Your task to perform on an android device: star an email in the gmail app Image 0: 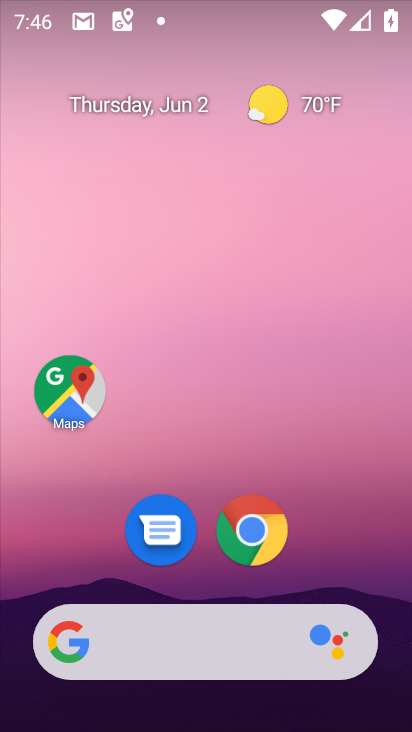
Step 0: drag from (211, 606) to (277, 334)
Your task to perform on an android device: star an email in the gmail app Image 1: 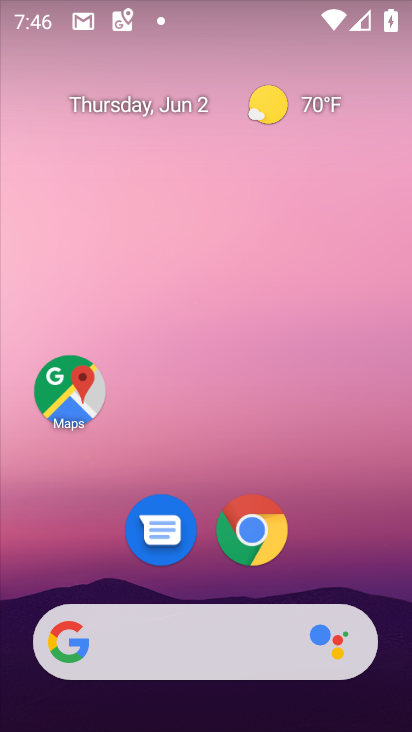
Step 1: drag from (254, 598) to (287, 260)
Your task to perform on an android device: star an email in the gmail app Image 2: 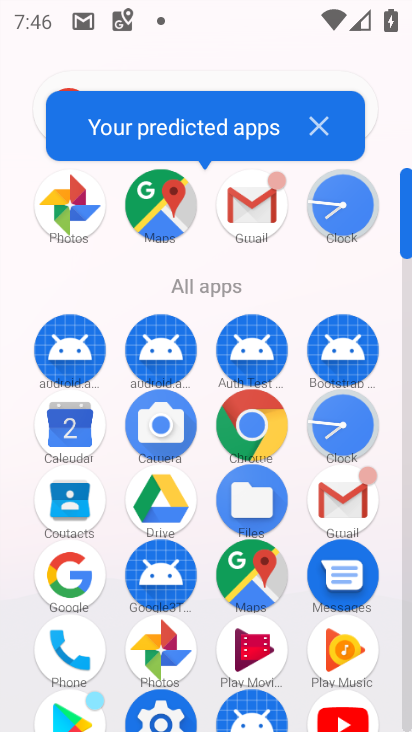
Step 2: click (254, 208)
Your task to perform on an android device: star an email in the gmail app Image 3: 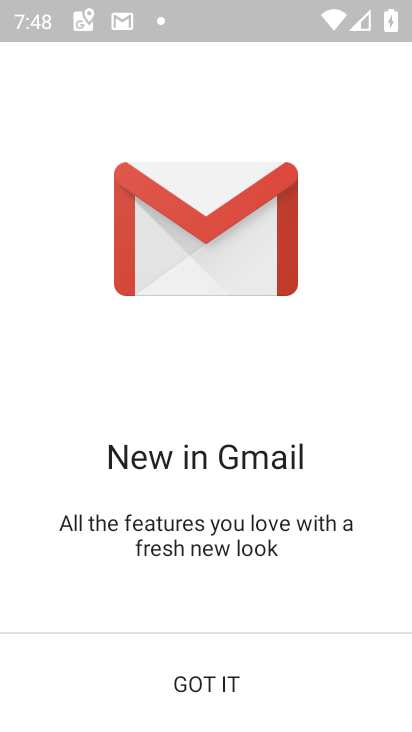
Step 3: click (178, 679)
Your task to perform on an android device: star an email in the gmail app Image 4: 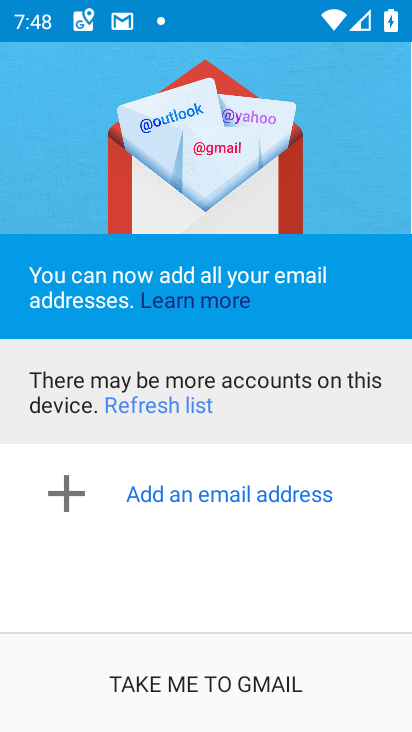
Step 4: click (178, 679)
Your task to perform on an android device: star an email in the gmail app Image 5: 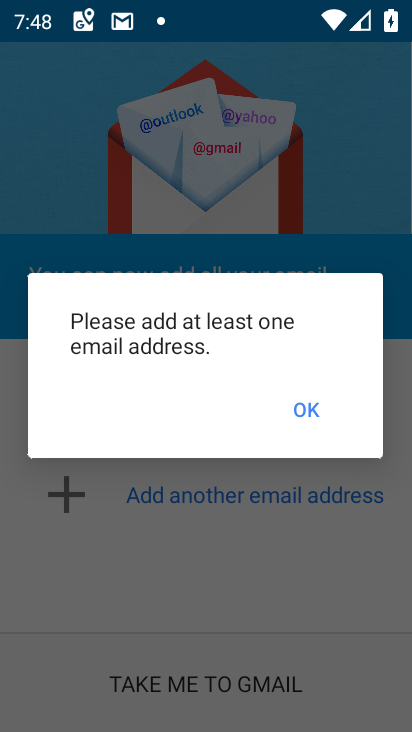
Step 5: click (307, 400)
Your task to perform on an android device: star an email in the gmail app Image 6: 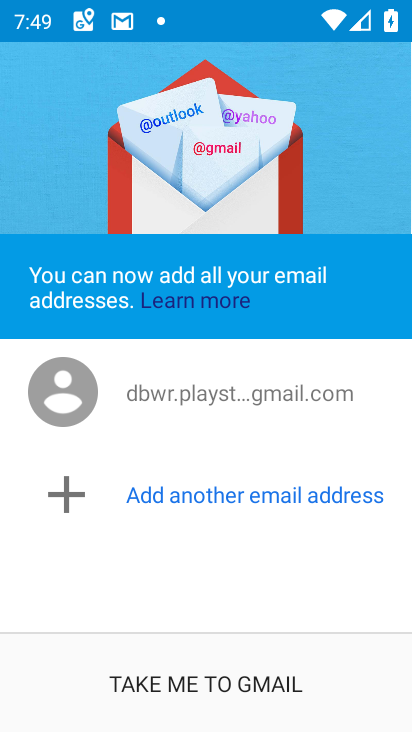
Step 6: click (226, 685)
Your task to perform on an android device: star an email in the gmail app Image 7: 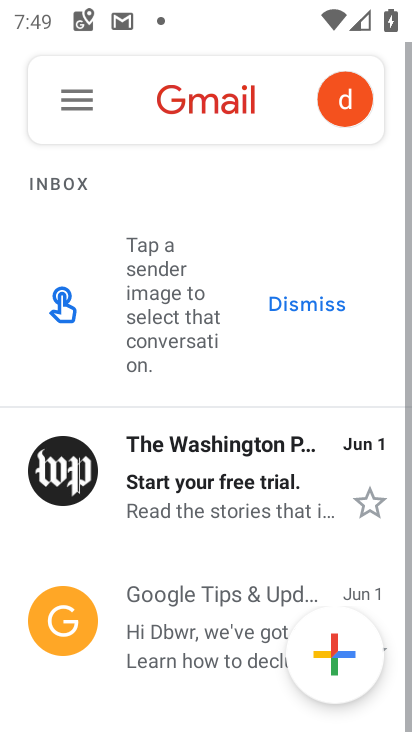
Step 7: click (365, 506)
Your task to perform on an android device: star an email in the gmail app Image 8: 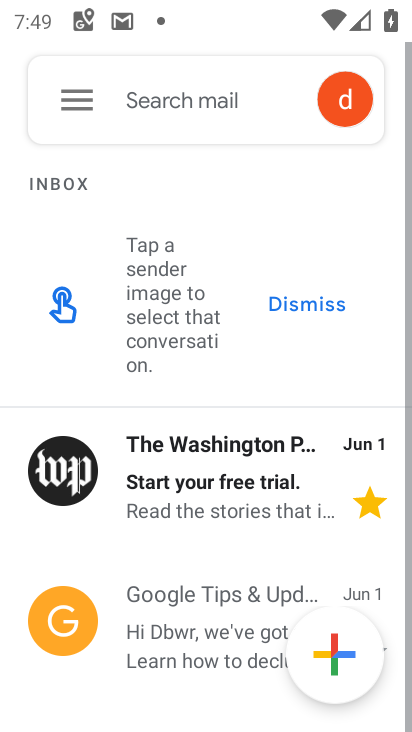
Step 8: task complete